Your task to perform on an android device: change the upload size in google photos Image 0: 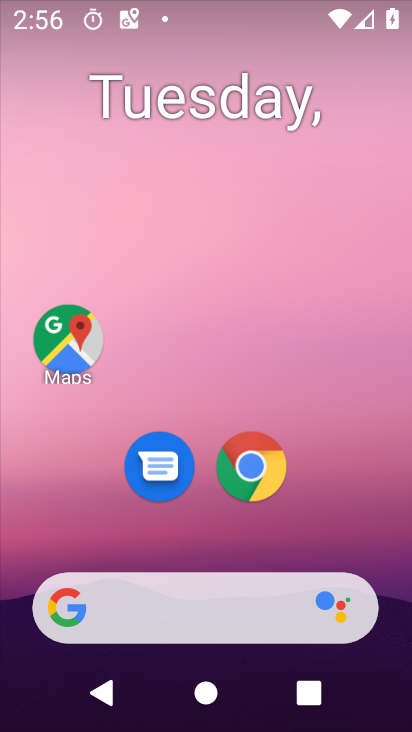
Step 0: drag from (358, 526) to (372, 212)
Your task to perform on an android device: change the upload size in google photos Image 1: 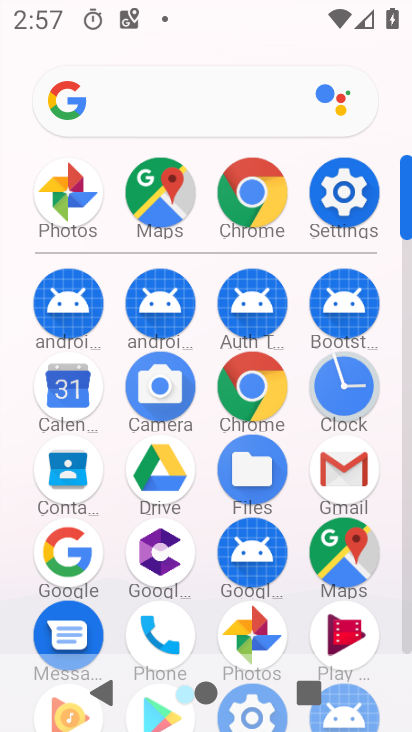
Step 1: click (258, 645)
Your task to perform on an android device: change the upload size in google photos Image 2: 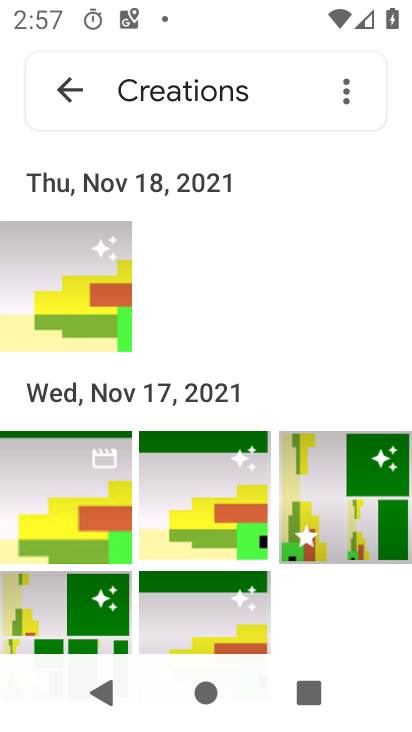
Step 2: click (64, 84)
Your task to perform on an android device: change the upload size in google photos Image 3: 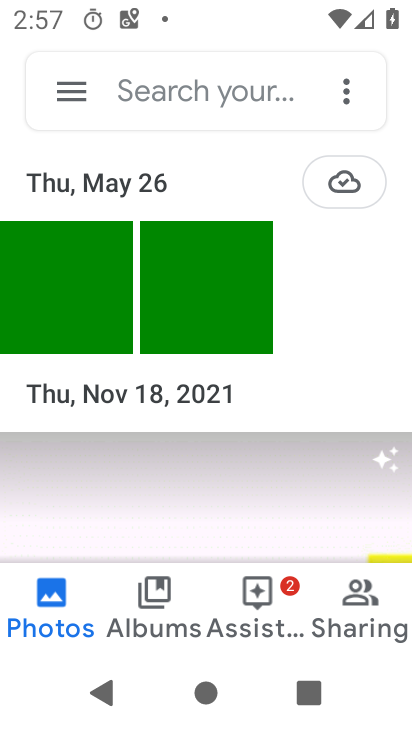
Step 3: click (79, 82)
Your task to perform on an android device: change the upload size in google photos Image 4: 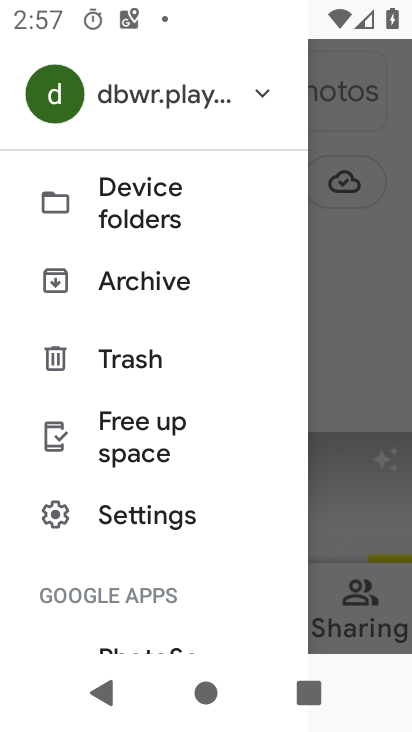
Step 4: click (183, 532)
Your task to perform on an android device: change the upload size in google photos Image 5: 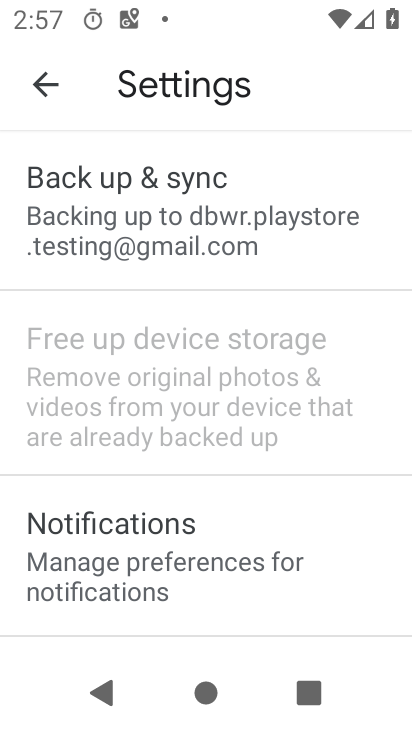
Step 5: click (271, 240)
Your task to perform on an android device: change the upload size in google photos Image 6: 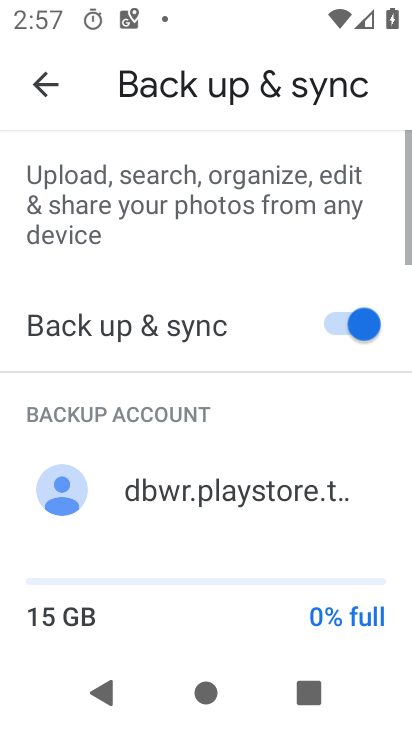
Step 6: drag from (315, 498) to (297, 318)
Your task to perform on an android device: change the upload size in google photos Image 7: 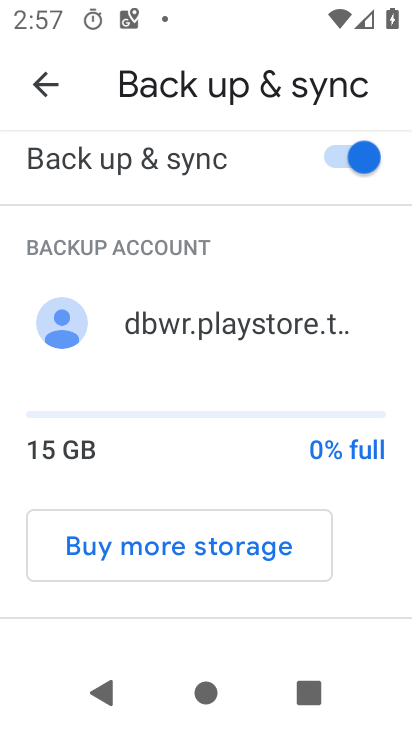
Step 7: drag from (268, 571) to (275, 391)
Your task to perform on an android device: change the upload size in google photos Image 8: 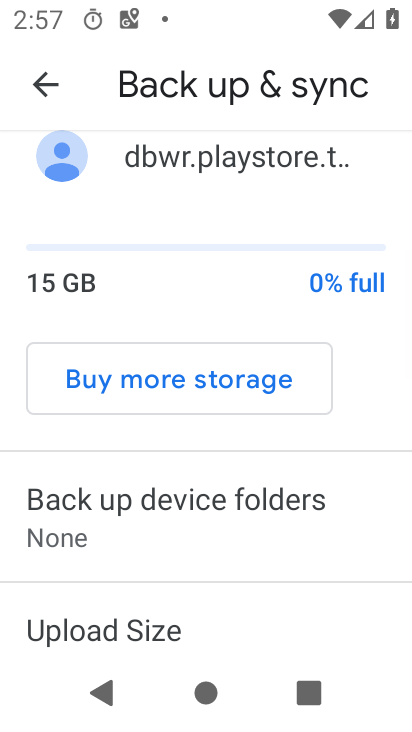
Step 8: drag from (269, 568) to (265, 396)
Your task to perform on an android device: change the upload size in google photos Image 9: 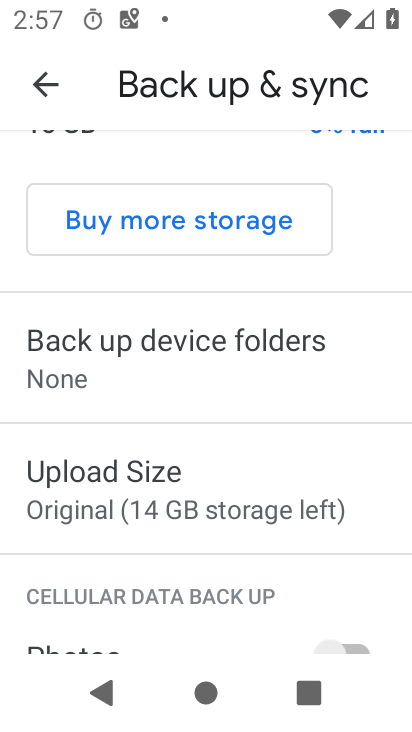
Step 9: click (255, 503)
Your task to perform on an android device: change the upload size in google photos Image 10: 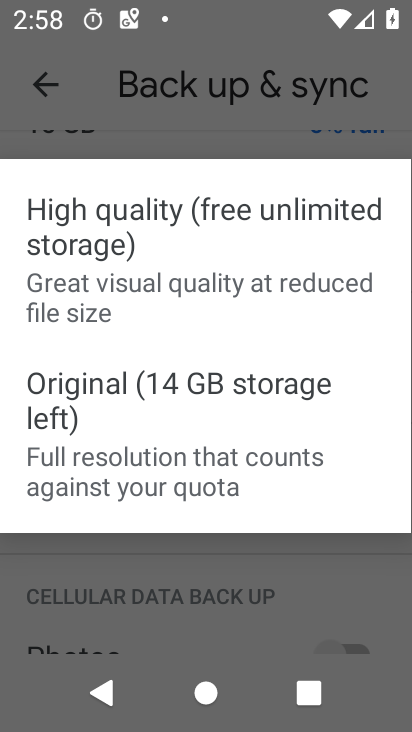
Step 10: click (240, 438)
Your task to perform on an android device: change the upload size in google photos Image 11: 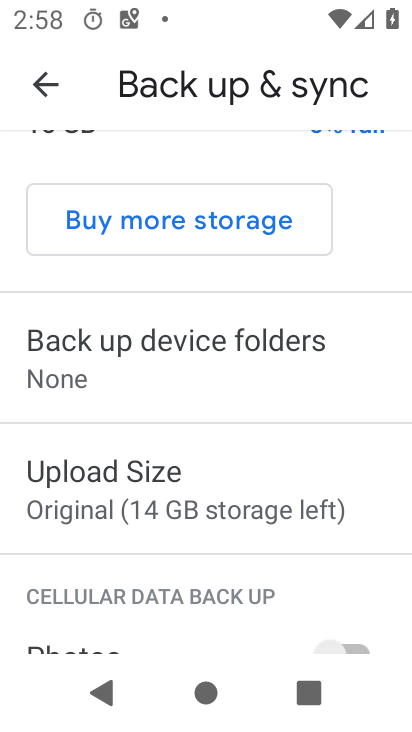
Step 11: task complete